Your task to perform on an android device: Search for Italian restaurants on Maps Image 0: 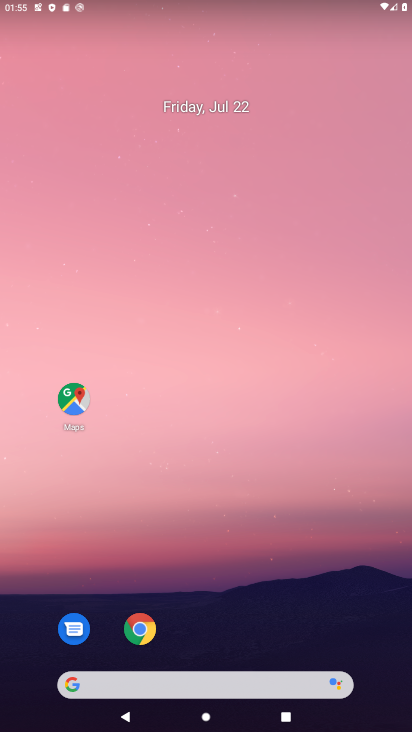
Step 0: click (62, 406)
Your task to perform on an android device: Search for Italian restaurants on Maps Image 1: 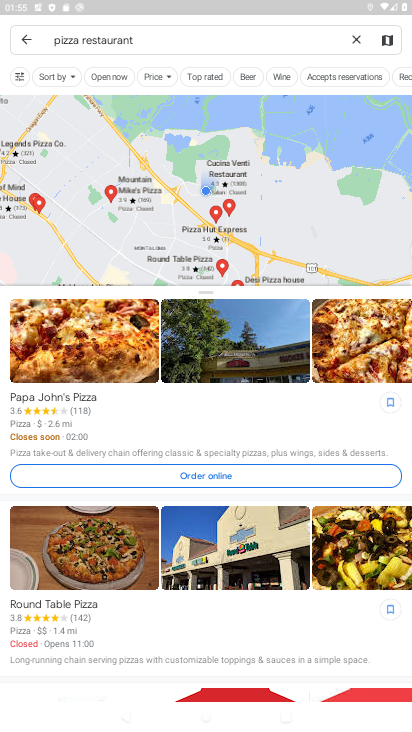
Step 1: click (356, 40)
Your task to perform on an android device: Search for Italian restaurants on Maps Image 2: 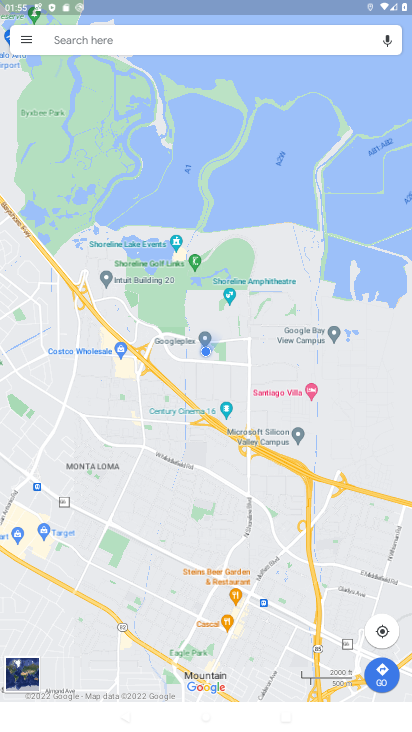
Step 2: click (191, 34)
Your task to perform on an android device: Search for Italian restaurants on Maps Image 3: 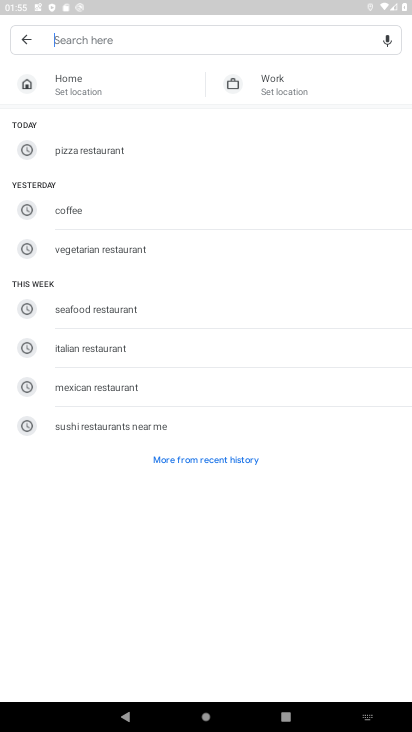
Step 3: click (98, 344)
Your task to perform on an android device: Search for Italian restaurants on Maps Image 4: 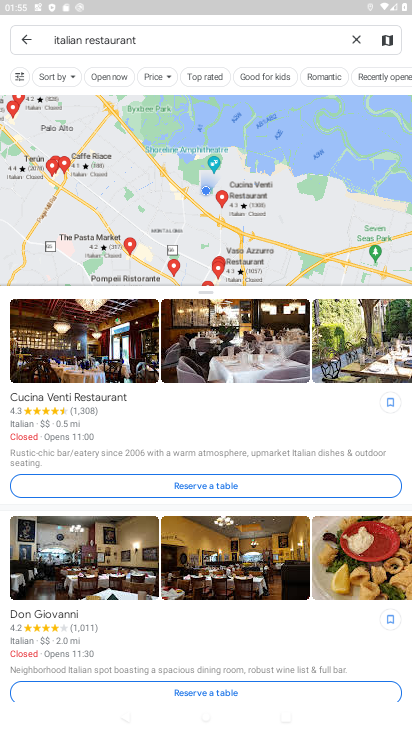
Step 4: task complete